Your task to perform on an android device: turn off smart reply in the gmail app Image 0: 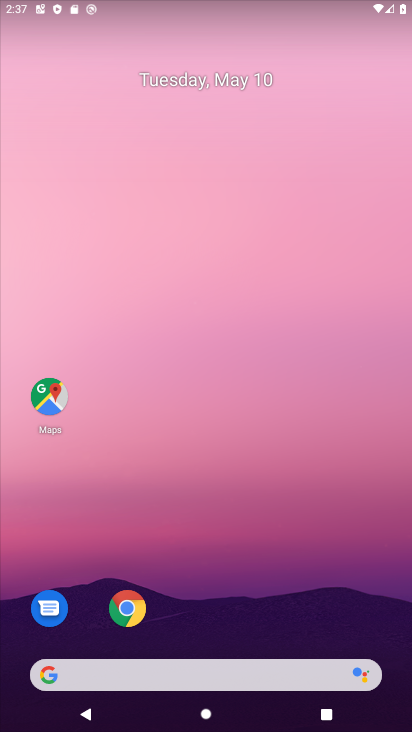
Step 0: drag from (219, 631) to (329, 0)
Your task to perform on an android device: turn off smart reply in the gmail app Image 1: 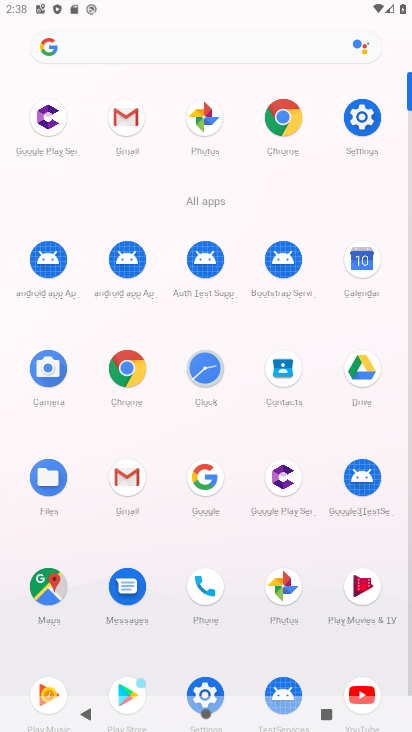
Step 1: click (129, 485)
Your task to perform on an android device: turn off smart reply in the gmail app Image 2: 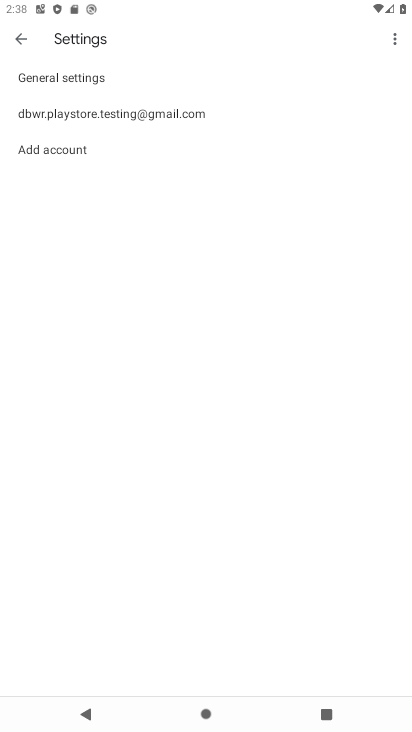
Step 2: click (97, 113)
Your task to perform on an android device: turn off smart reply in the gmail app Image 3: 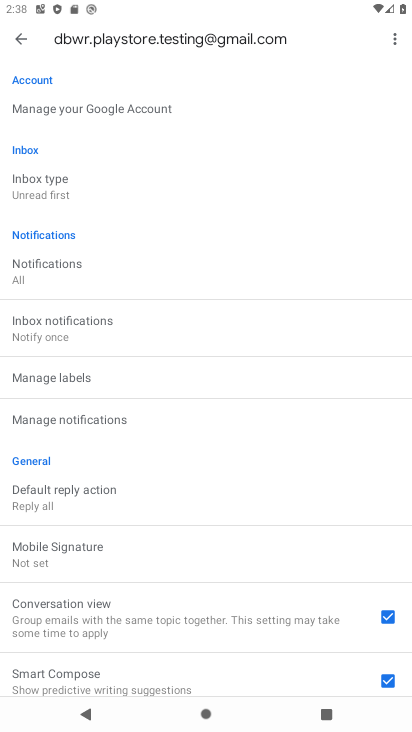
Step 3: drag from (138, 614) to (198, 281)
Your task to perform on an android device: turn off smart reply in the gmail app Image 4: 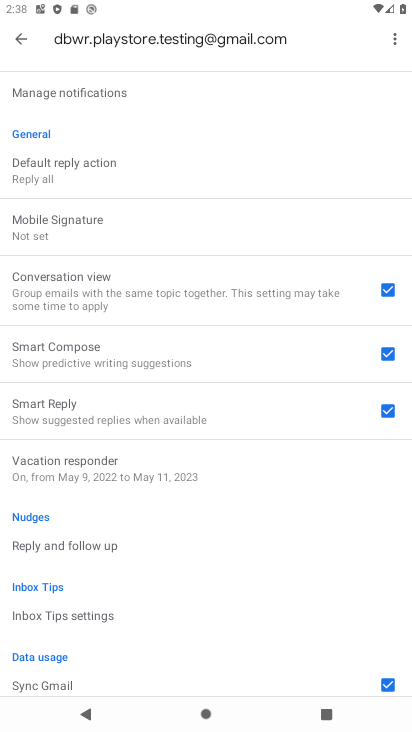
Step 4: click (372, 411)
Your task to perform on an android device: turn off smart reply in the gmail app Image 5: 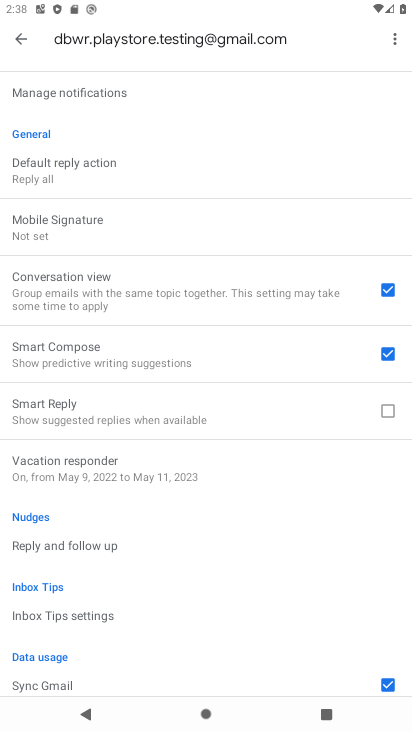
Step 5: task complete